Your task to perform on an android device: turn off notifications settings in the gmail app Image 0: 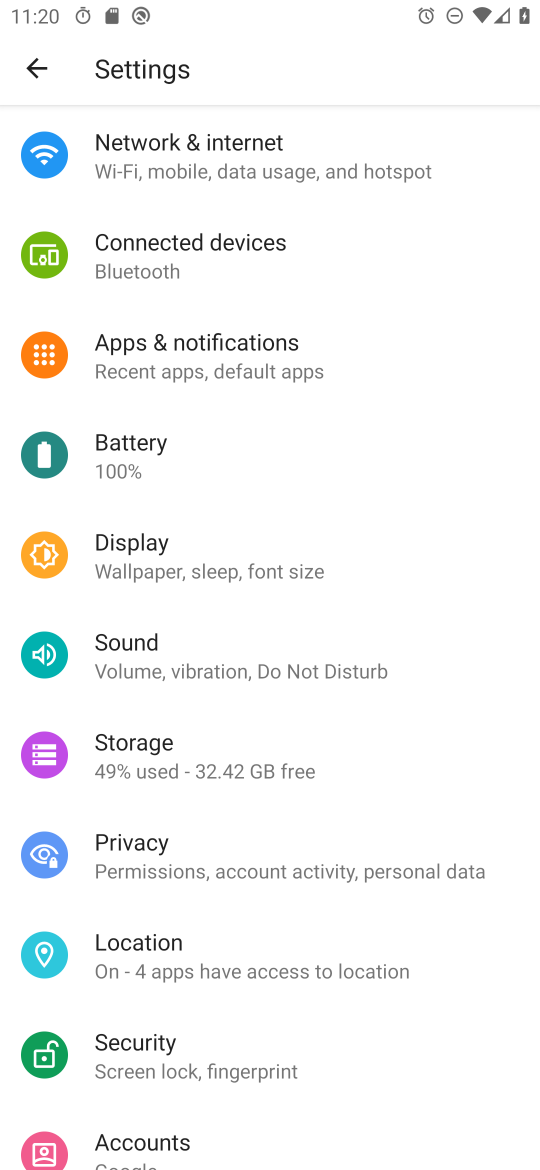
Step 0: press home button
Your task to perform on an android device: turn off notifications settings in the gmail app Image 1: 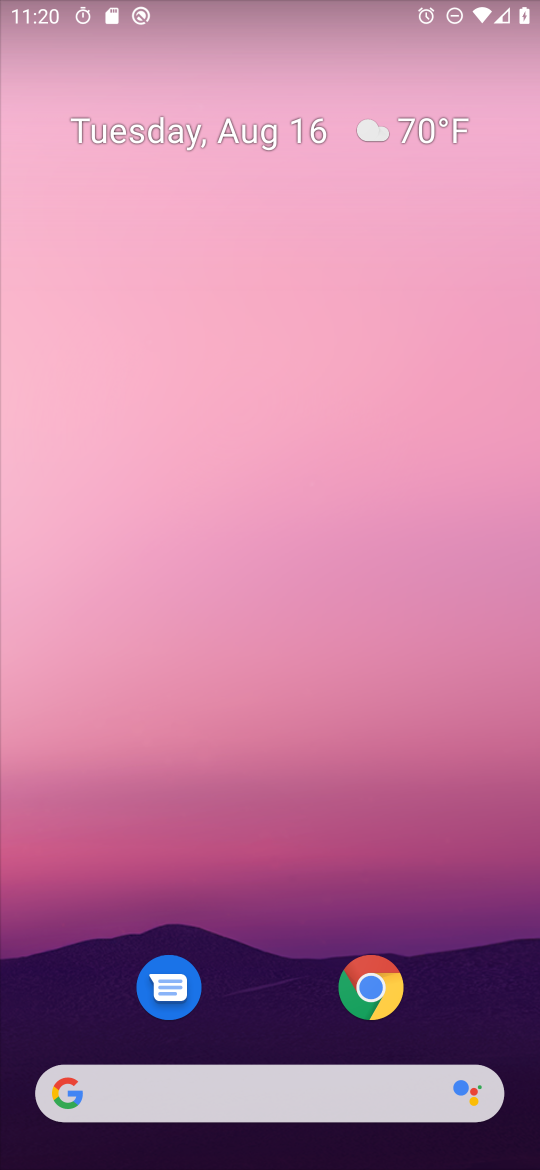
Step 1: drag from (23, 1122) to (303, 435)
Your task to perform on an android device: turn off notifications settings in the gmail app Image 2: 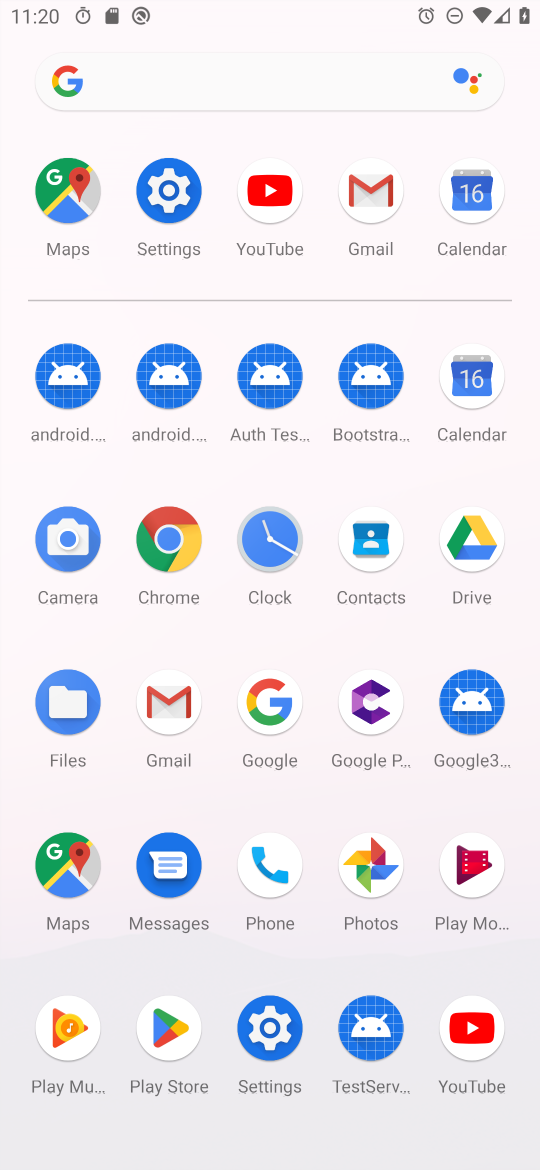
Step 2: click (365, 197)
Your task to perform on an android device: turn off notifications settings in the gmail app Image 3: 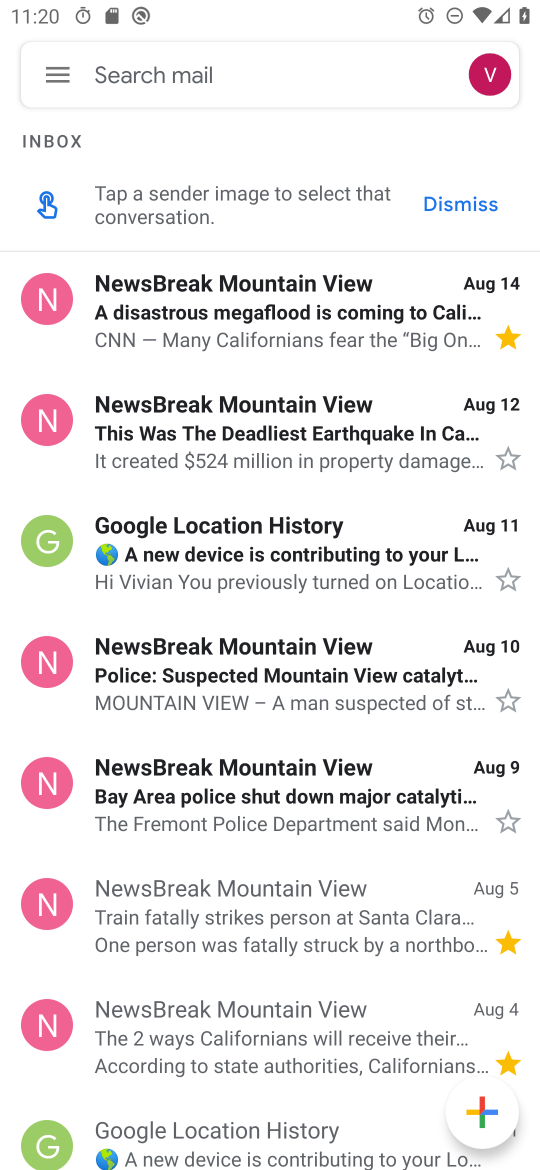
Step 3: click (58, 79)
Your task to perform on an android device: turn off notifications settings in the gmail app Image 4: 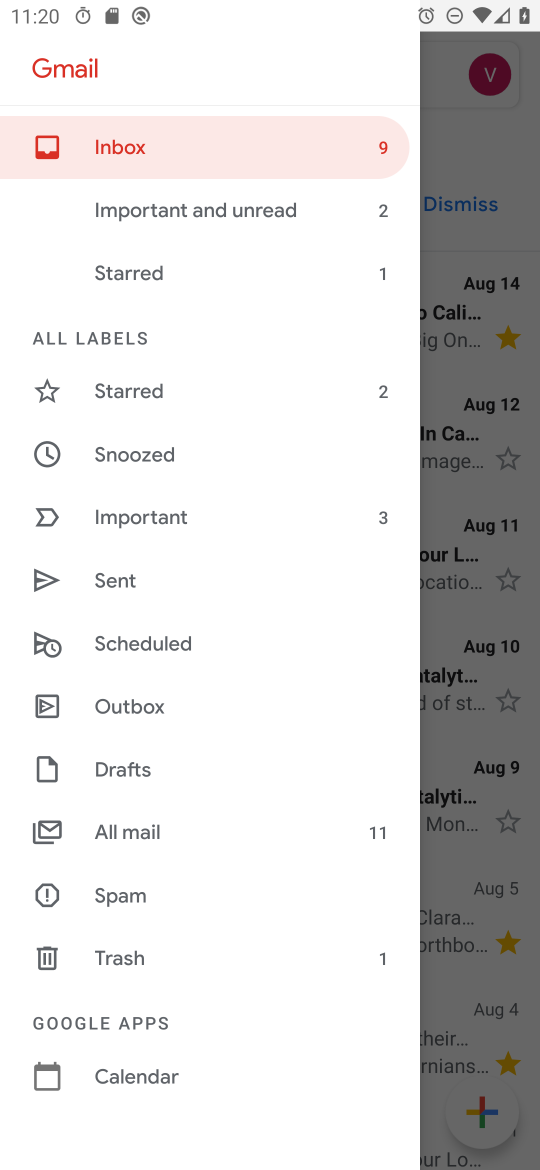
Step 4: drag from (206, 1077) to (247, 481)
Your task to perform on an android device: turn off notifications settings in the gmail app Image 5: 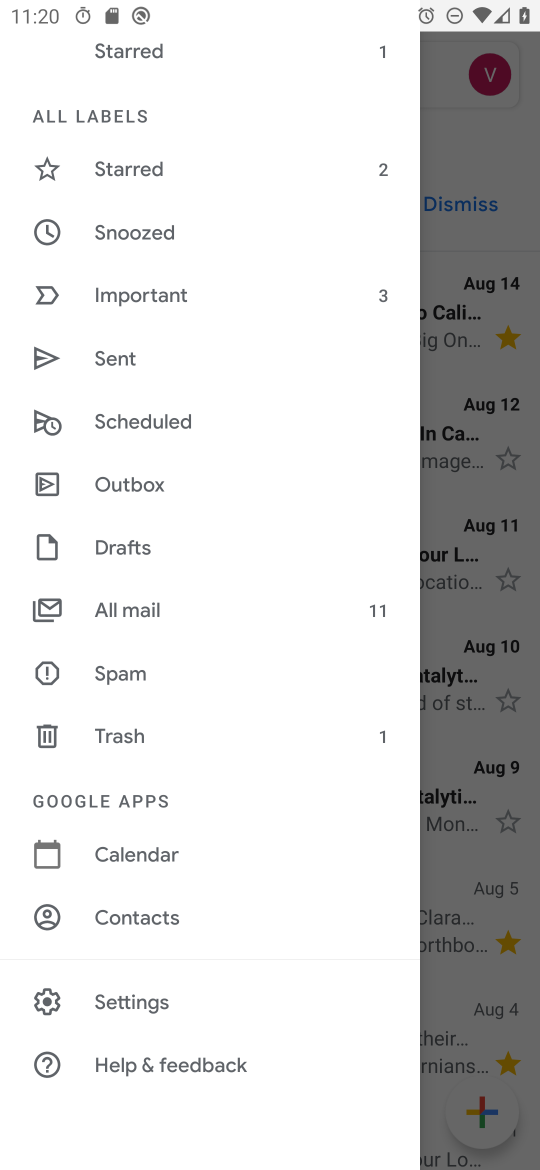
Step 5: click (132, 998)
Your task to perform on an android device: turn off notifications settings in the gmail app Image 6: 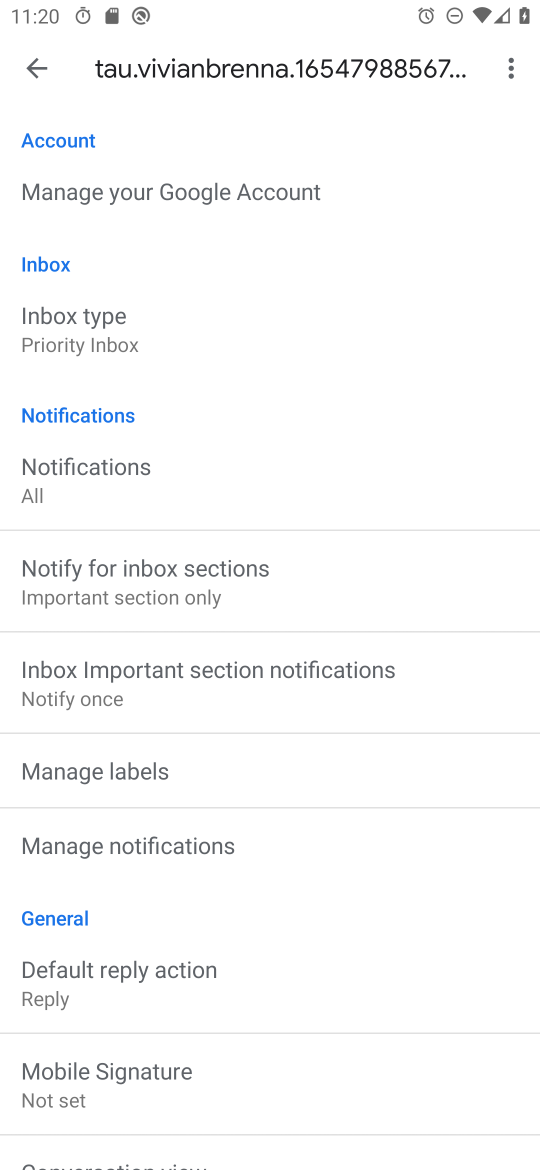
Step 6: click (129, 850)
Your task to perform on an android device: turn off notifications settings in the gmail app Image 7: 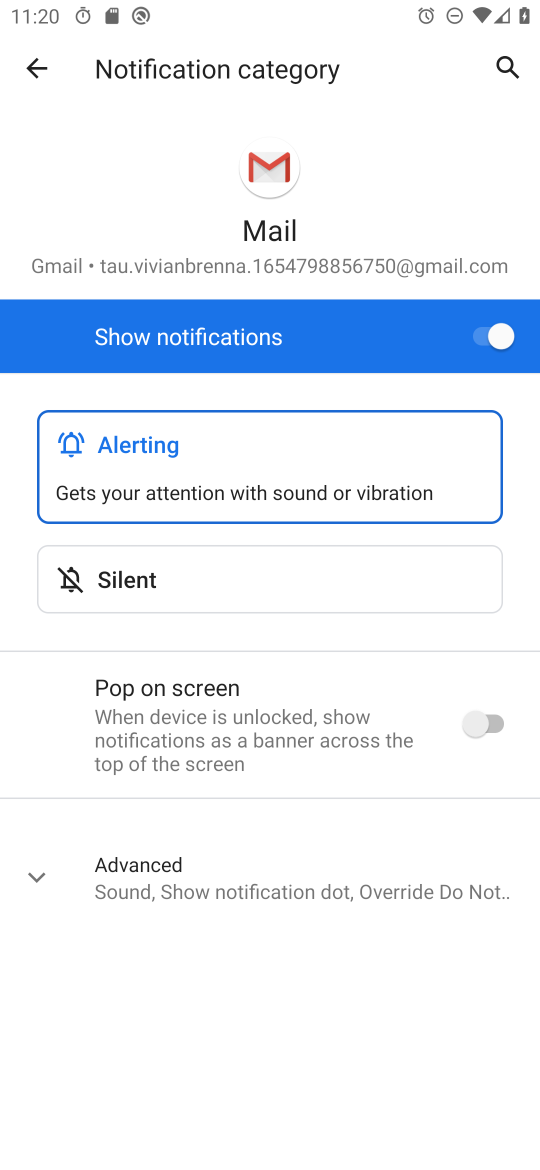
Step 7: click (487, 338)
Your task to perform on an android device: turn off notifications settings in the gmail app Image 8: 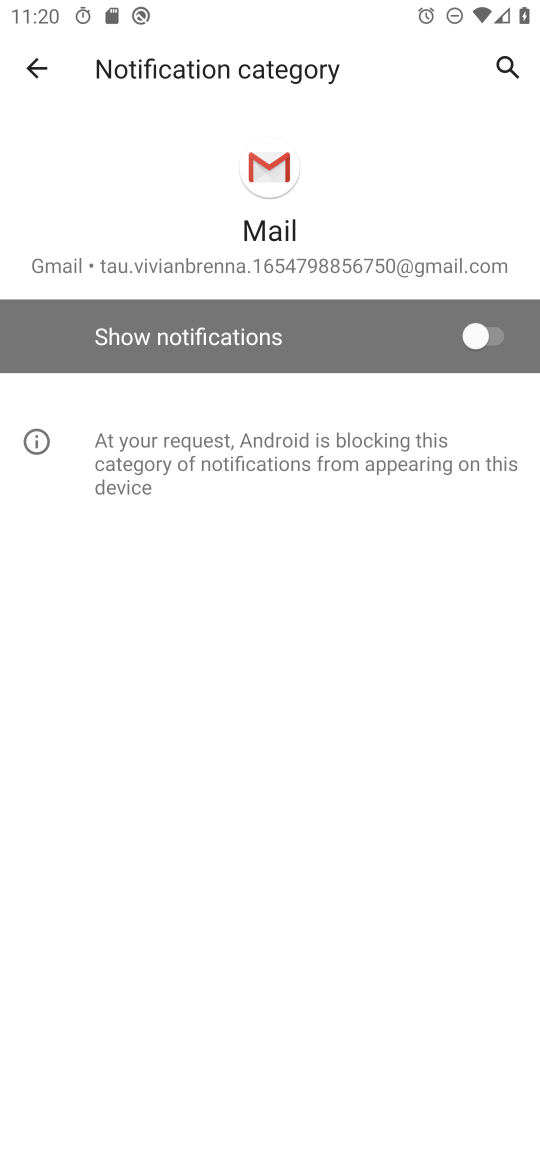
Step 8: task complete